Your task to perform on an android device: Open Android settings Image 0: 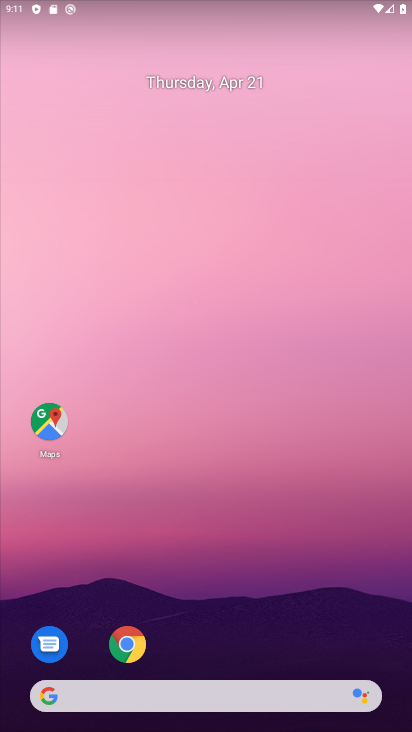
Step 0: drag from (225, 641) to (204, 221)
Your task to perform on an android device: Open Android settings Image 1: 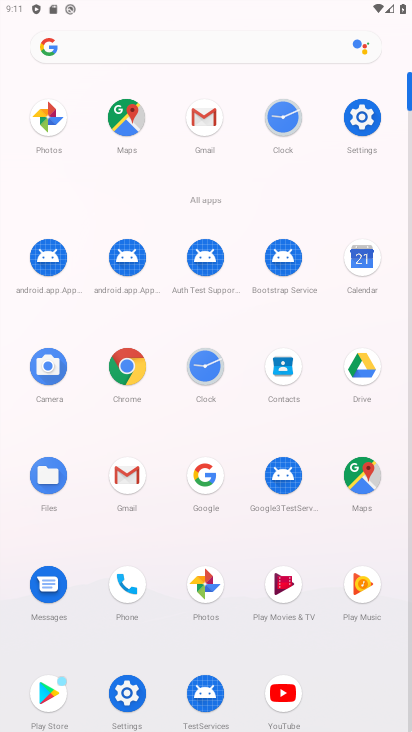
Step 1: click (357, 114)
Your task to perform on an android device: Open Android settings Image 2: 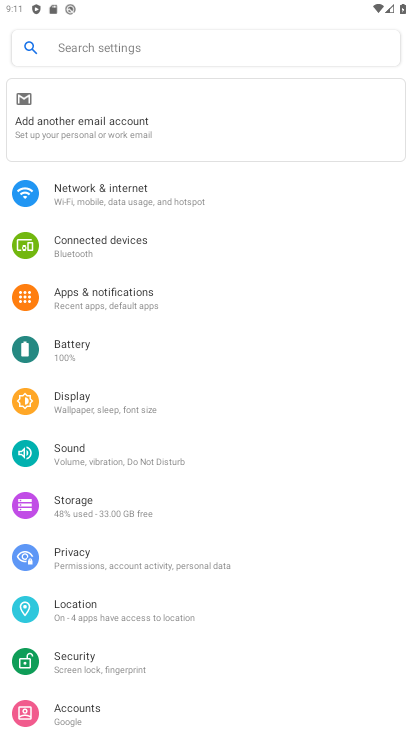
Step 2: task complete